Your task to perform on an android device: Open the map Image 0: 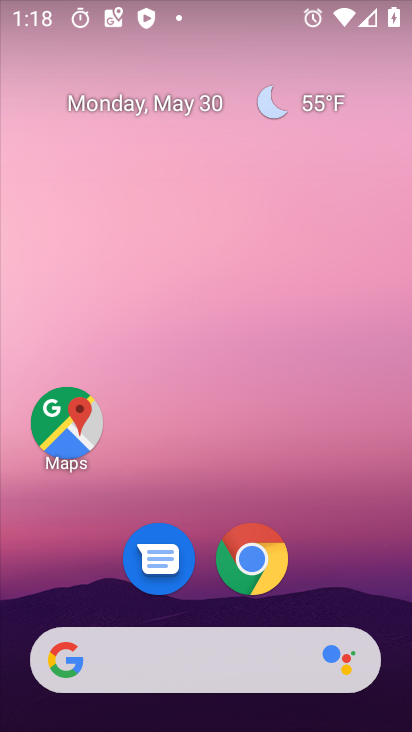
Step 0: click (69, 432)
Your task to perform on an android device: Open the map Image 1: 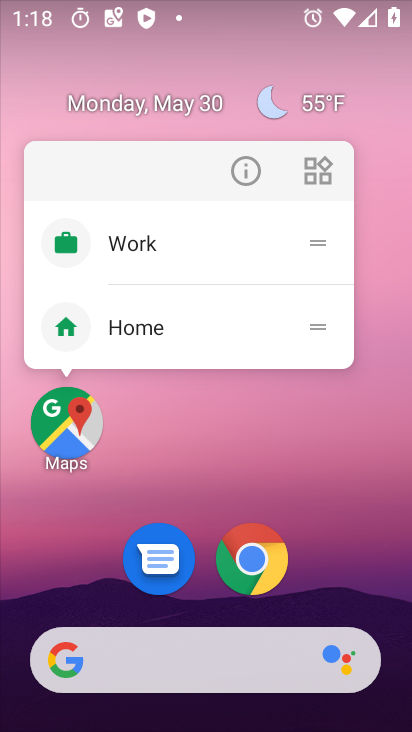
Step 1: click (67, 431)
Your task to perform on an android device: Open the map Image 2: 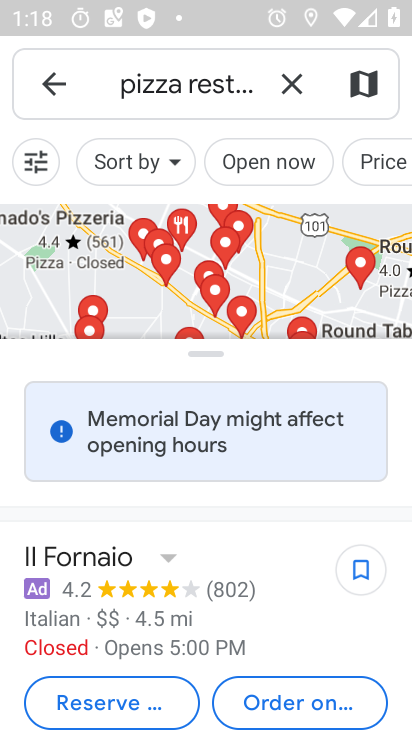
Step 2: task complete